Your task to perform on an android device: allow cookies in the chrome app Image 0: 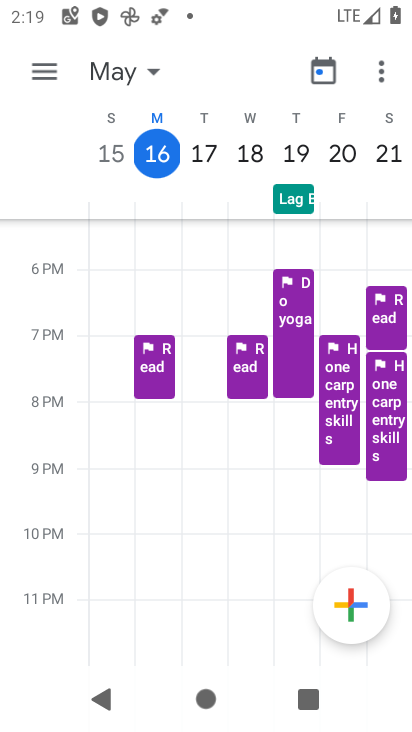
Step 0: press home button
Your task to perform on an android device: allow cookies in the chrome app Image 1: 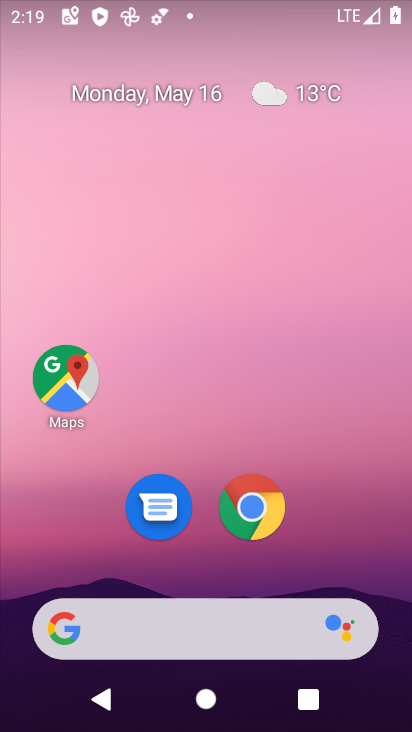
Step 1: click (253, 517)
Your task to perform on an android device: allow cookies in the chrome app Image 2: 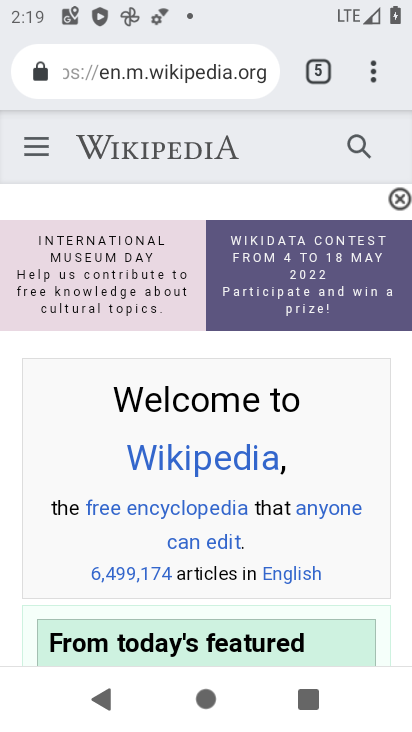
Step 2: click (370, 71)
Your task to perform on an android device: allow cookies in the chrome app Image 3: 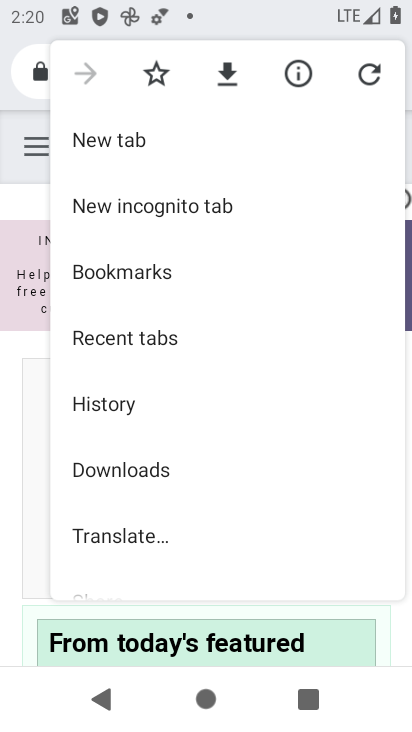
Step 3: drag from (257, 491) to (212, 144)
Your task to perform on an android device: allow cookies in the chrome app Image 4: 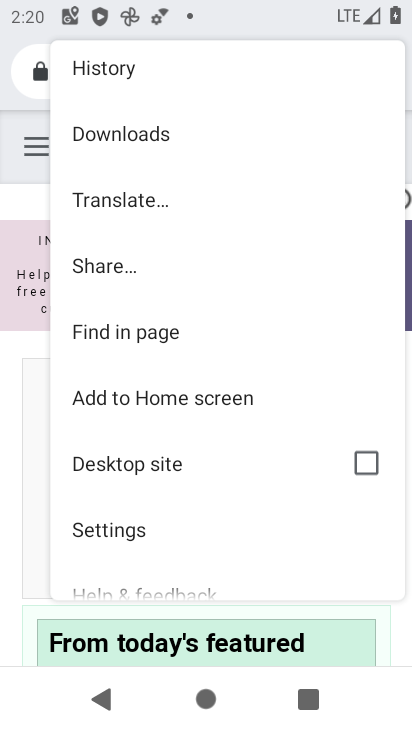
Step 4: click (175, 522)
Your task to perform on an android device: allow cookies in the chrome app Image 5: 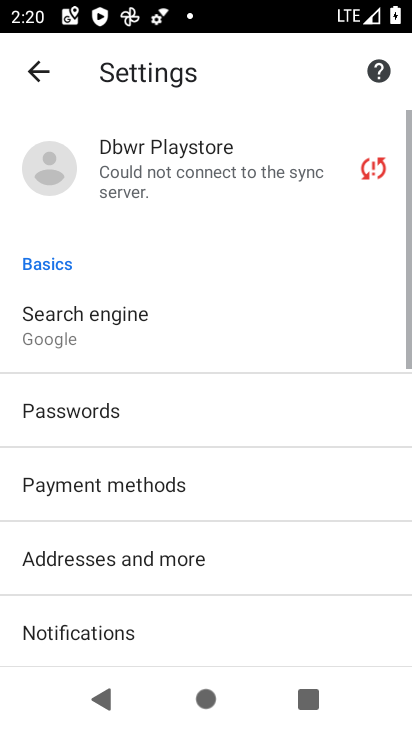
Step 5: drag from (217, 535) to (165, 104)
Your task to perform on an android device: allow cookies in the chrome app Image 6: 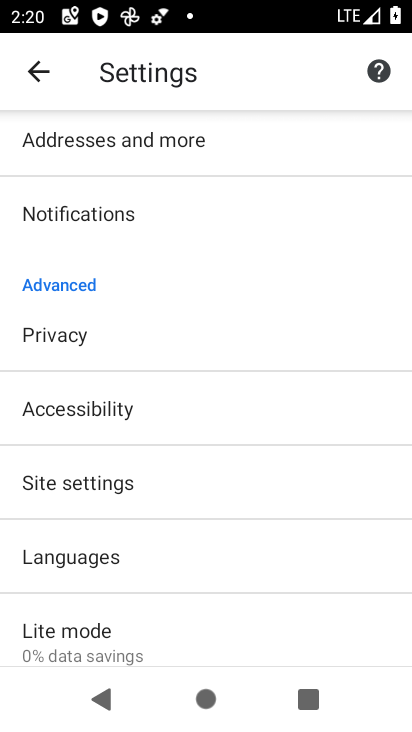
Step 6: click (193, 485)
Your task to perform on an android device: allow cookies in the chrome app Image 7: 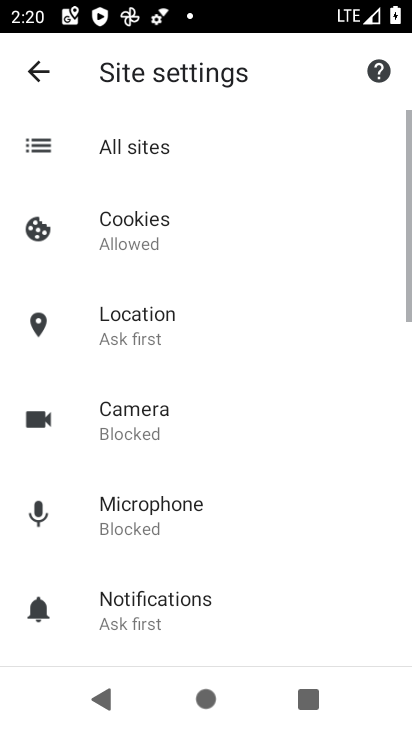
Step 7: click (288, 226)
Your task to perform on an android device: allow cookies in the chrome app Image 8: 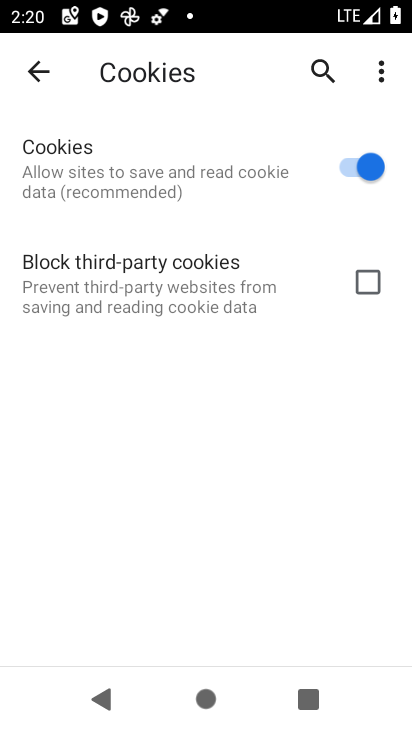
Step 8: task complete